Your task to perform on an android device: delete the emails in spam in the gmail app Image 0: 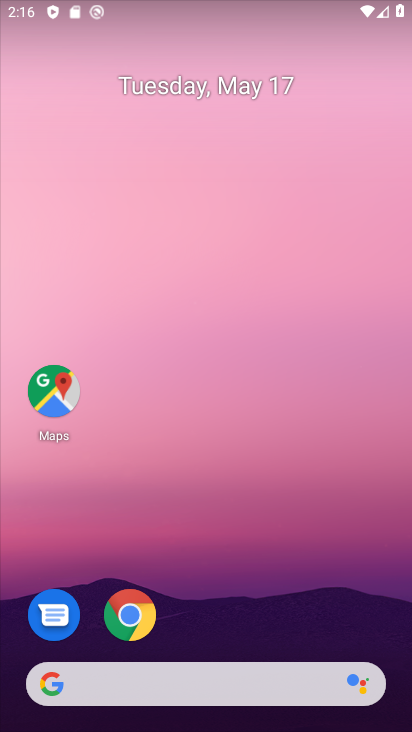
Step 0: drag from (212, 727) to (217, 152)
Your task to perform on an android device: delete the emails in spam in the gmail app Image 1: 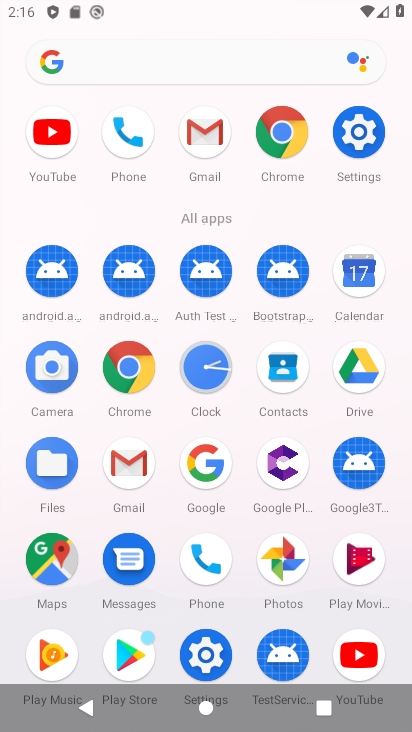
Step 1: click (131, 458)
Your task to perform on an android device: delete the emails in spam in the gmail app Image 2: 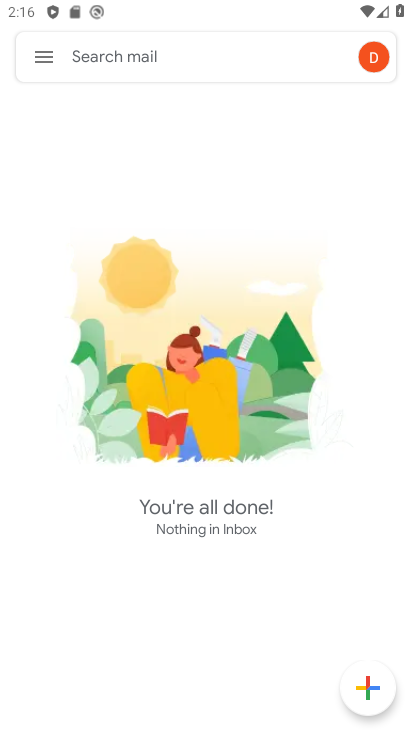
Step 2: task complete